Your task to perform on an android device: check storage Image 0: 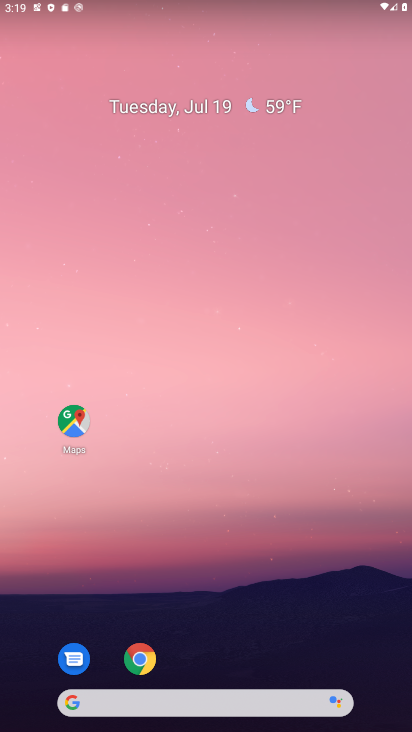
Step 0: drag from (199, 705) to (288, 221)
Your task to perform on an android device: check storage Image 1: 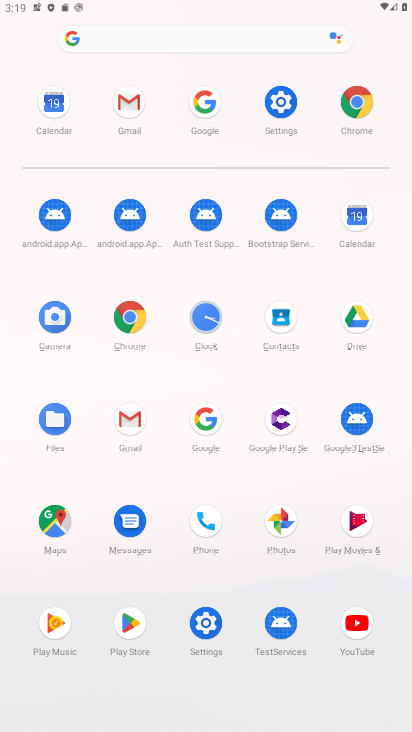
Step 1: click (282, 104)
Your task to perform on an android device: check storage Image 2: 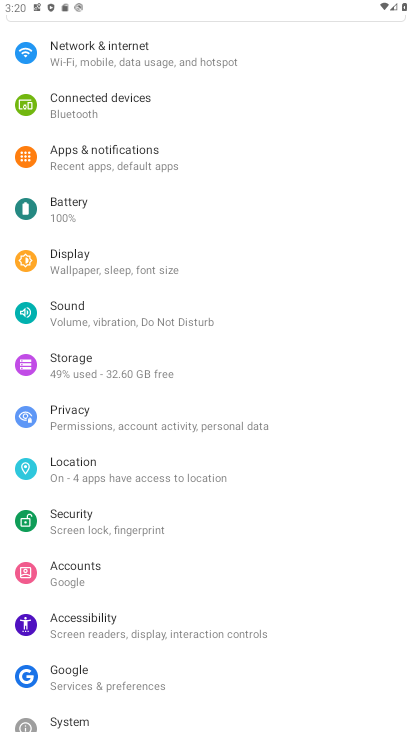
Step 2: click (107, 371)
Your task to perform on an android device: check storage Image 3: 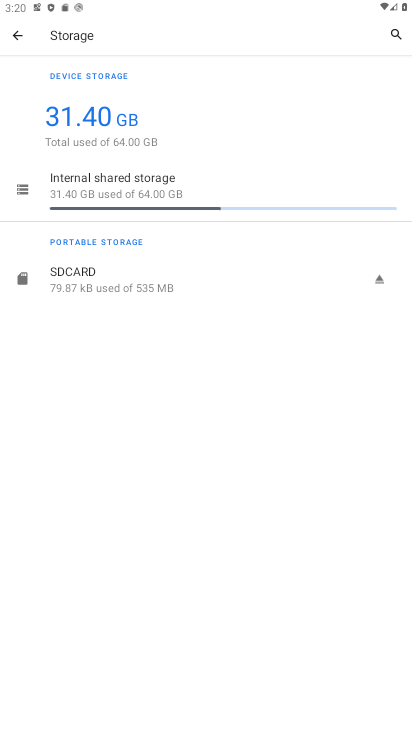
Step 3: task complete